Your task to perform on an android device: allow cookies in the chrome app Image 0: 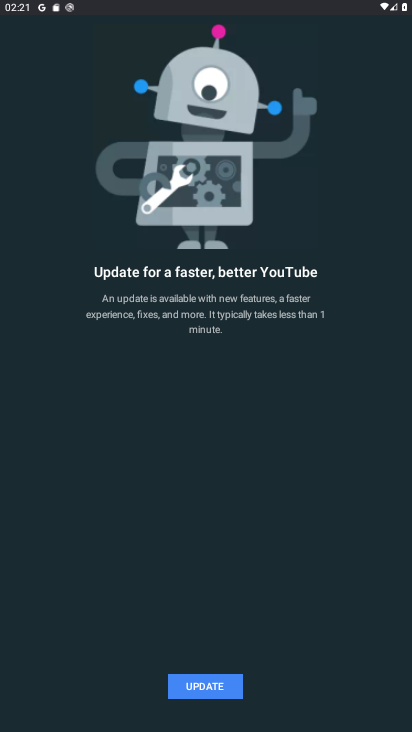
Step 0: press home button
Your task to perform on an android device: allow cookies in the chrome app Image 1: 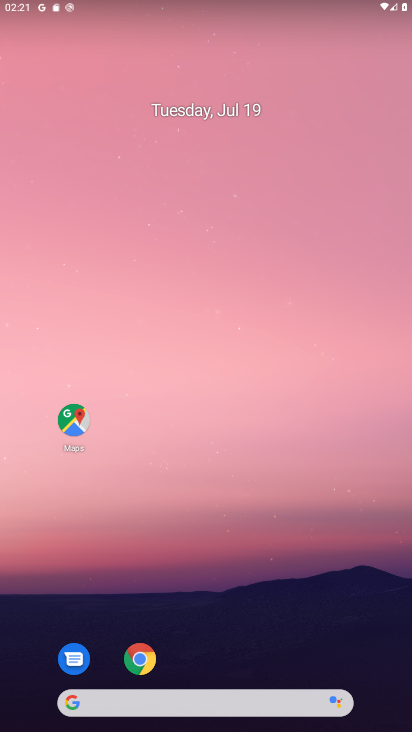
Step 1: click (130, 655)
Your task to perform on an android device: allow cookies in the chrome app Image 2: 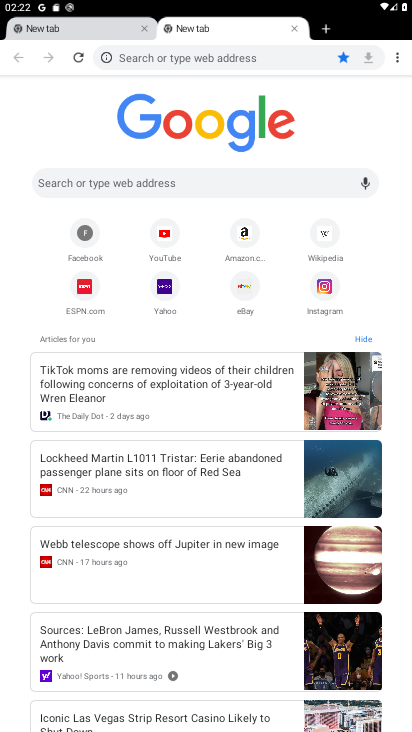
Step 2: click (395, 54)
Your task to perform on an android device: allow cookies in the chrome app Image 3: 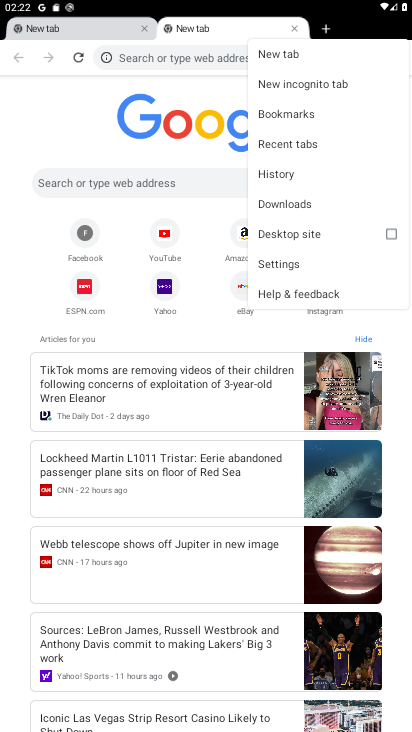
Step 3: click (280, 264)
Your task to perform on an android device: allow cookies in the chrome app Image 4: 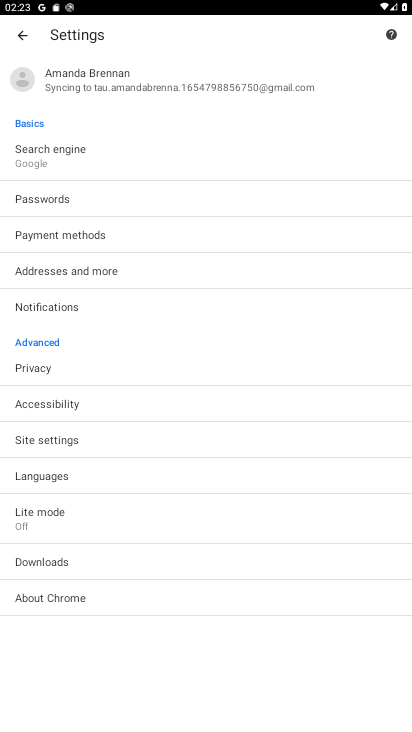
Step 4: click (46, 438)
Your task to perform on an android device: allow cookies in the chrome app Image 5: 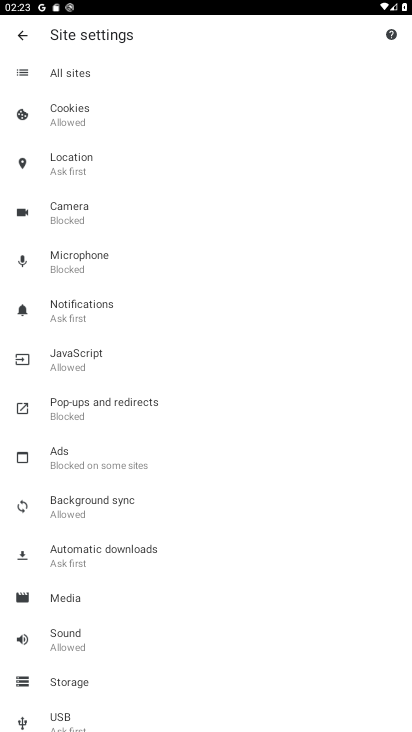
Step 5: click (75, 112)
Your task to perform on an android device: allow cookies in the chrome app Image 6: 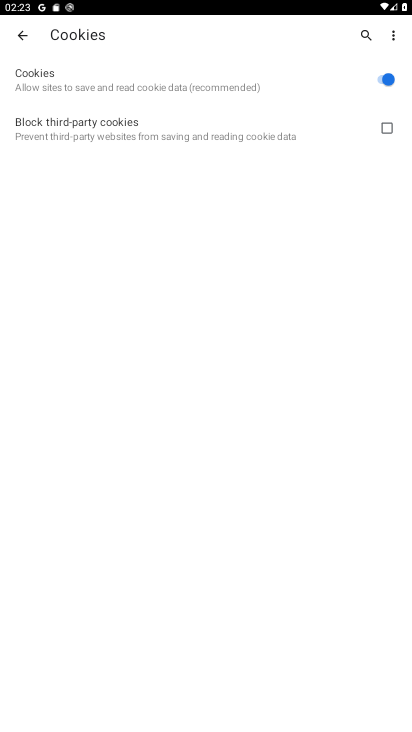
Step 6: task complete